Your task to perform on an android device: turn on priority inbox in the gmail app Image 0: 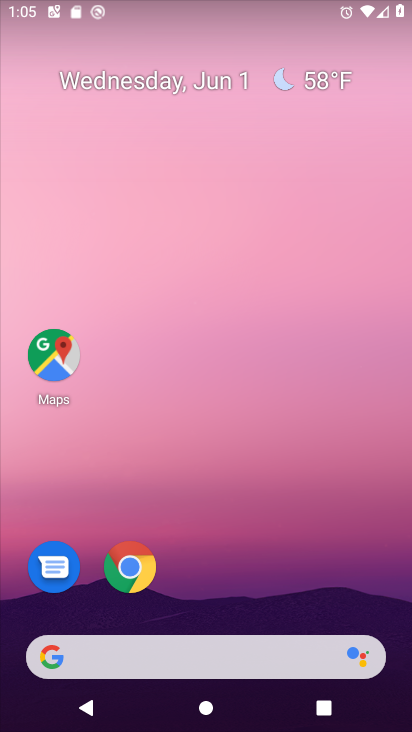
Step 0: drag from (261, 545) to (263, 62)
Your task to perform on an android device: turn on priority inbox in the gmail app Image 1: 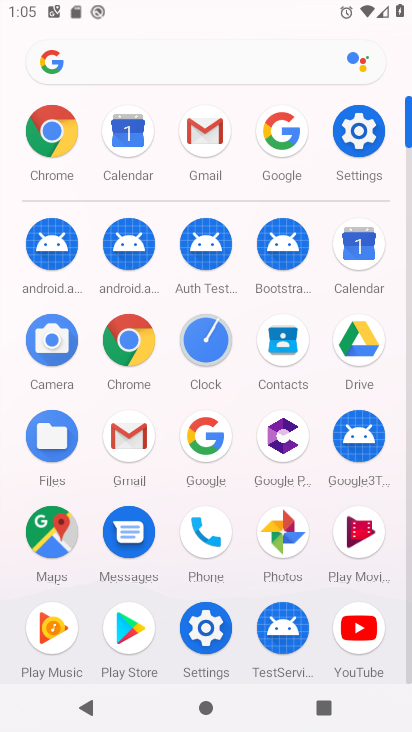
Step 1: click (130, 442)
Your task to perform on an android device: turn on priority inbox in the gmail app Image 2: 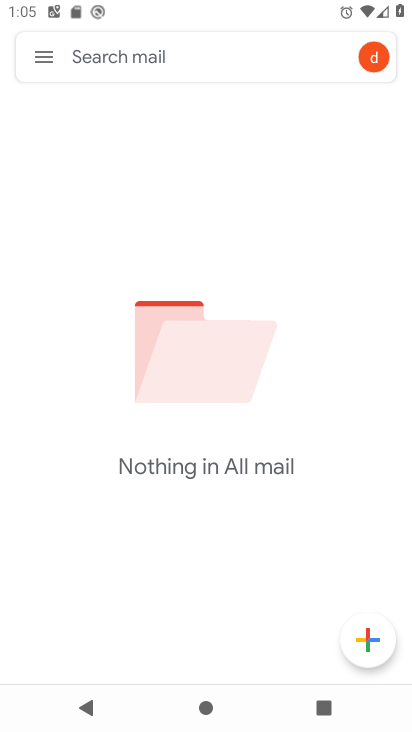
Step 2: click (47, 58)
Your task to perform on an android device: turn on priority inbox in the gmail app Image 3: 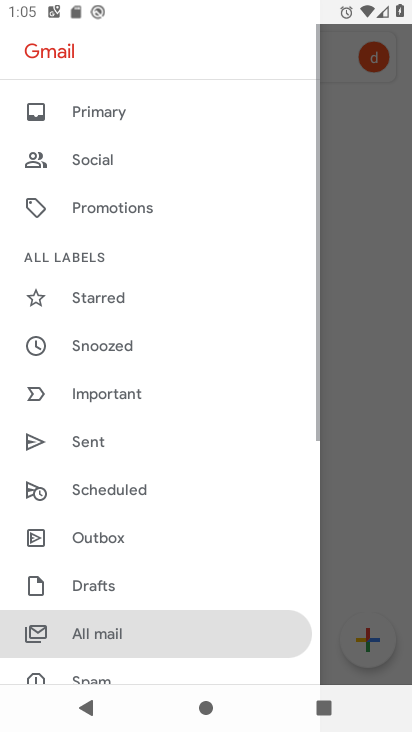
Step 3: drag from (150, 515) to (143, 157)
Your task to perform on an android device: turn on priority inbox in the gmail app Image 4: 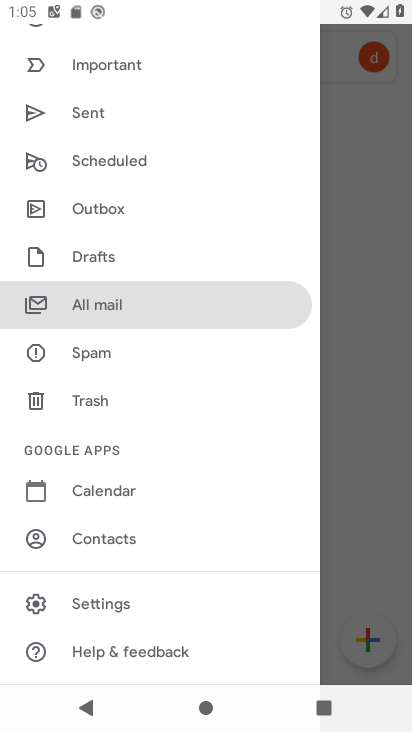
Step 4: click (122, 616)
Your task to perform on an android device: turn on priority inbox in the gmail app Image 5: 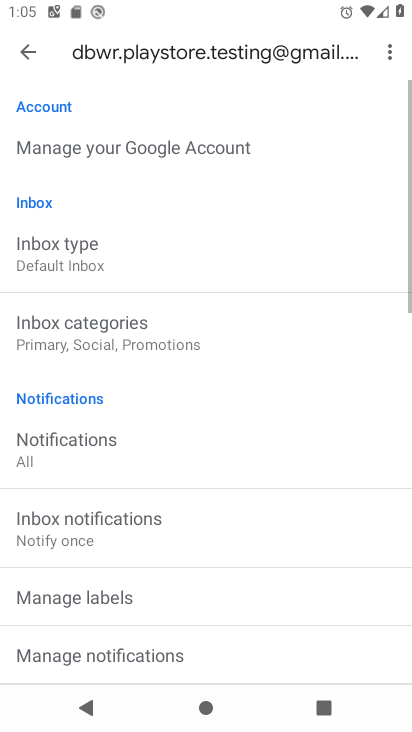
Step 5: click (65, 245)
Your task to perform on an android device: turn on priority inbox in the gmail app Image 6: 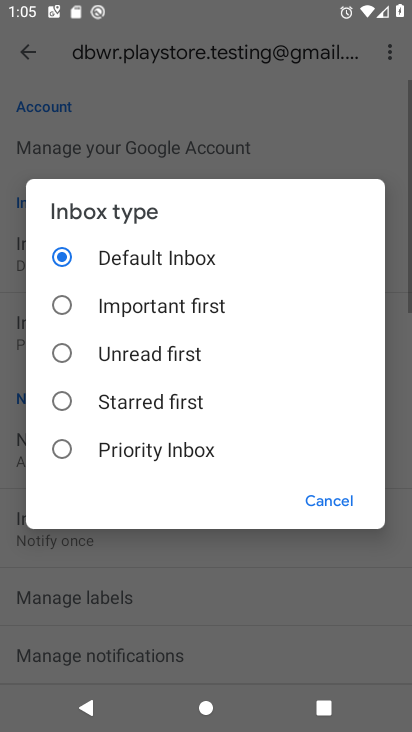
Step 6: click (56, 431)
Your task to perform on an android device: turn on priority inbox in the gmail app Image 7: 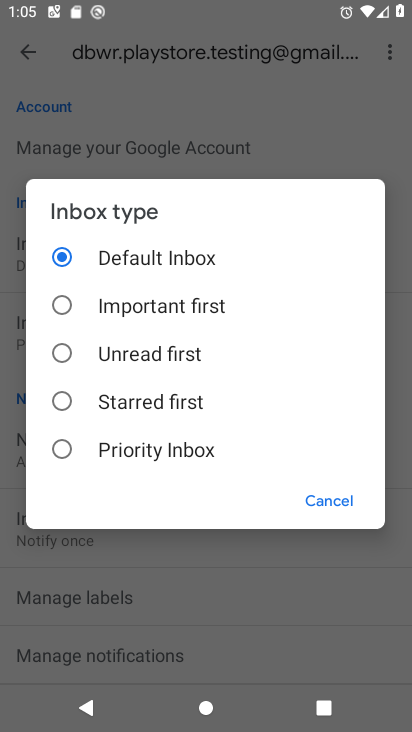
Step 7: click (61, 450)
Your task to perform on an android device: turn on priority inbox in the gmail app Image 8: 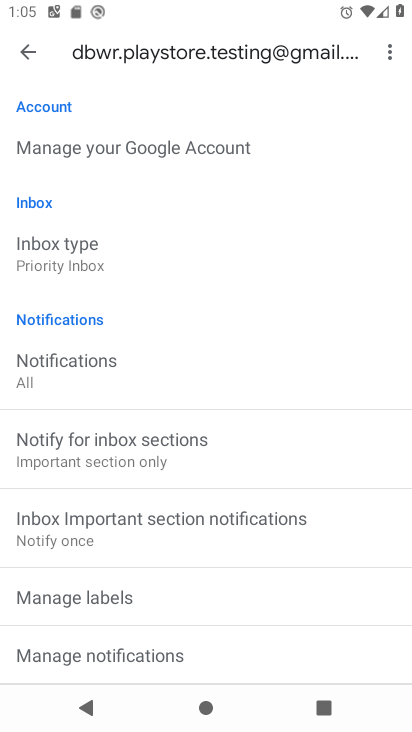
Step 8: task complete